Your task to perform on an android device: open the mobile data screen to see how much data has been used Image 0: 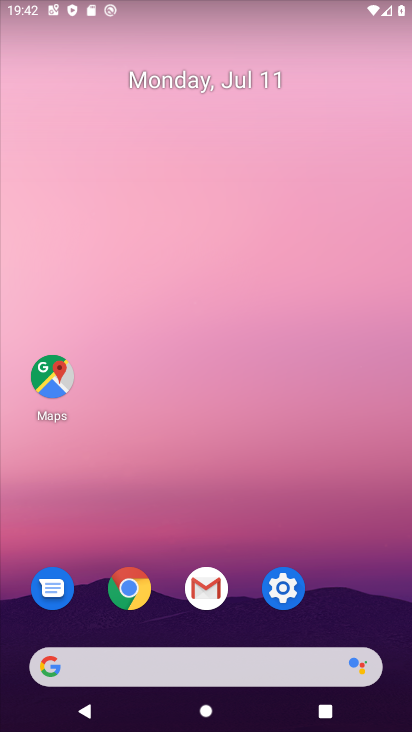
Step 0: click (286, 602)
Your task to perform on an android device: open the mobile data screen to see how much data has been used Image 1: 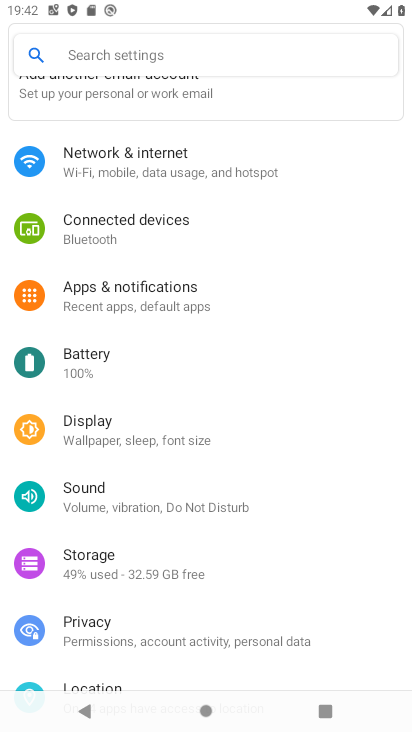
Step 1: click (151, 59)
Your task to perform on an android device: open the mobile data screen to see how much data has been used Image 2: 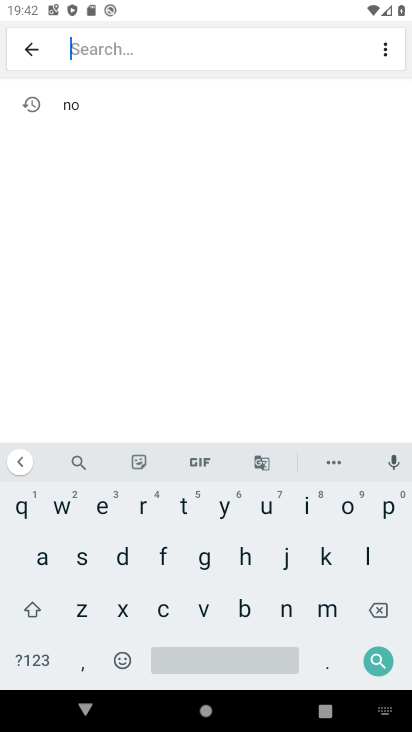
Step 2: click (119, 561)
Your task to perform on an android device: open the mobile data screen to see how much data has been used Image 3: 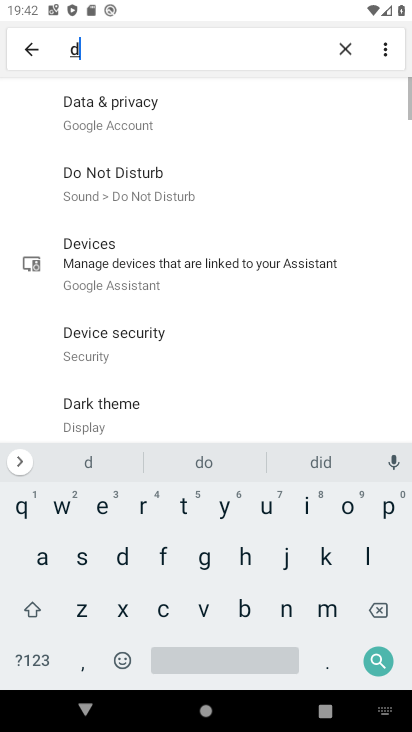
Step 3: click (37, 558)
Your task to perform on an android device: open the mobile data screen to see how much data has been used Image 4: 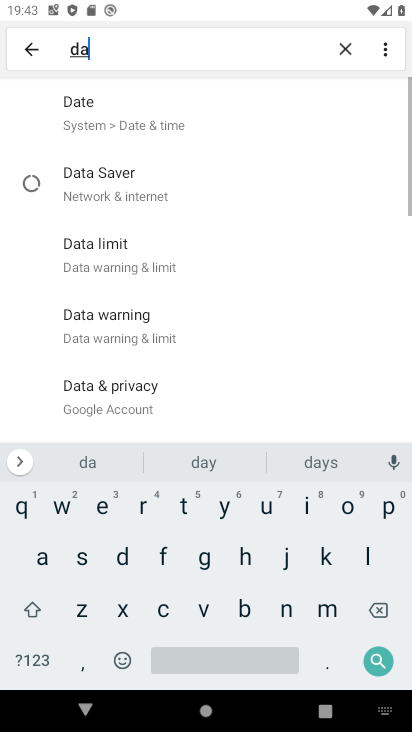
Step 4: click (186, 508)
Your task to perform on an android device: open the mobile data screen to see how much data has been used Image 5: 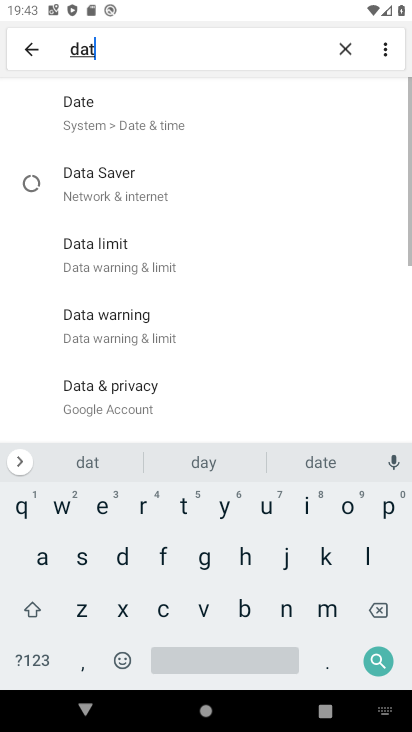
Step 5: click (44, 562)
Your task to perform on an android device: open the mobile data screen to see how much data has been used Image 6: 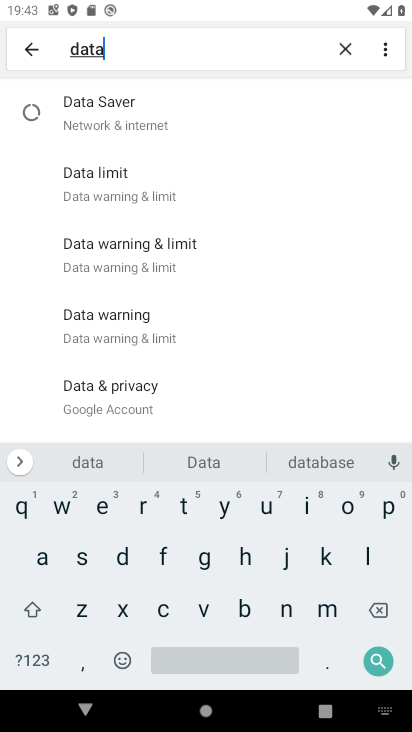
Step 6: click (199, 656)
Your task to perform on an android device: open the mobile data screen to see how much data has been used Image 7: 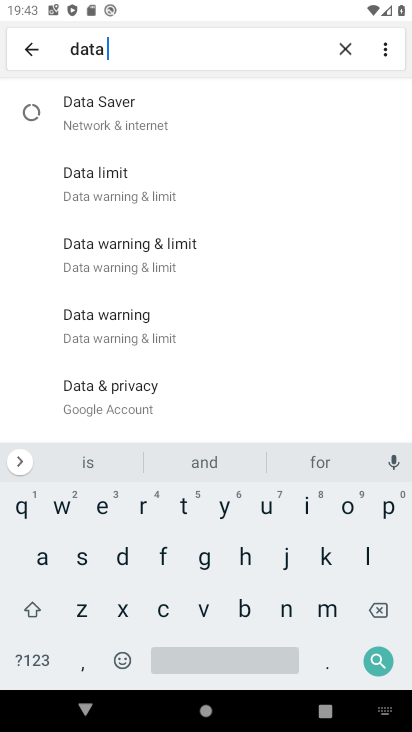
Step 7: click (263, 506)
Your task to perform on an android device: open the mobile data screen to see how much data has been used Image 8: 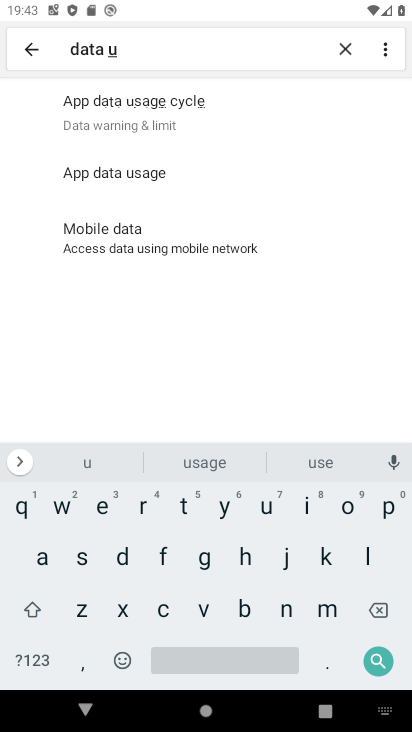
Step 8: click (139, 168)
Your task to perform on an android device: open the mobile data screen to see how much data has been used Image 9: 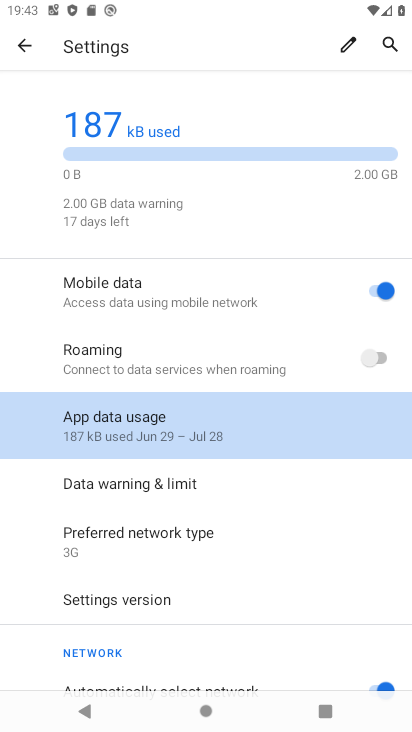
Step 9: click (151, 426)
Your task to perform on an android device: open the mobile data screen to see how much data has been used Image 10: 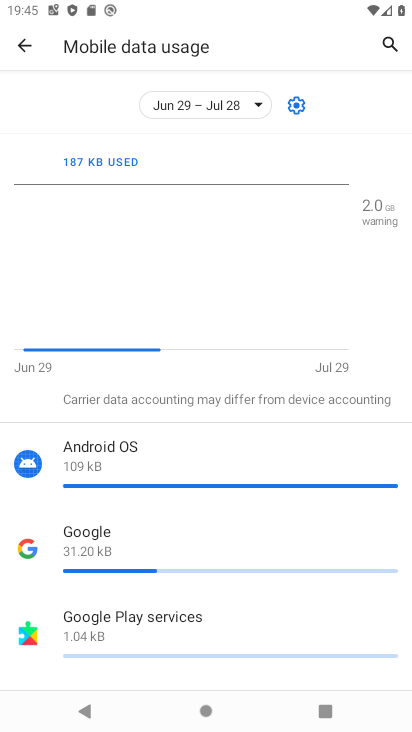
Step 10: task complete